Your task to perform on an android device: change the clock display to digital Image 0: 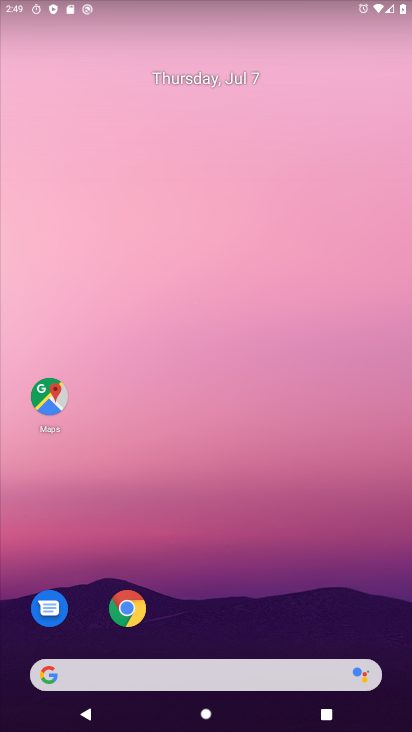
Step 0: drag from (229, 715) to (228, 147)
Your task to perform on an android device: change the clock display to digital Image 1: 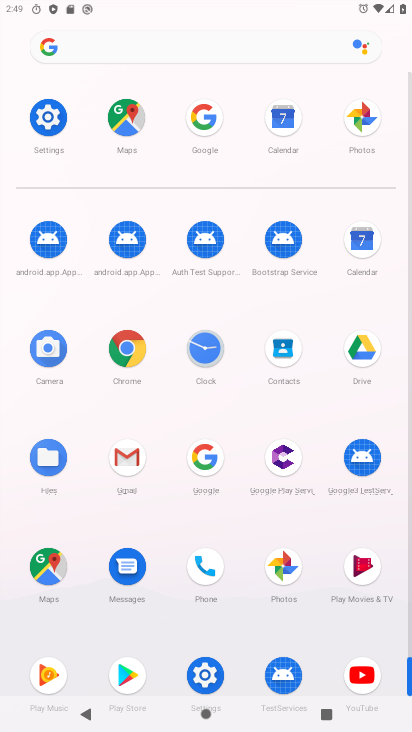
Step 1: click (197, 354)
Your task to perform on an android device: change the clock display to digital Image 2: 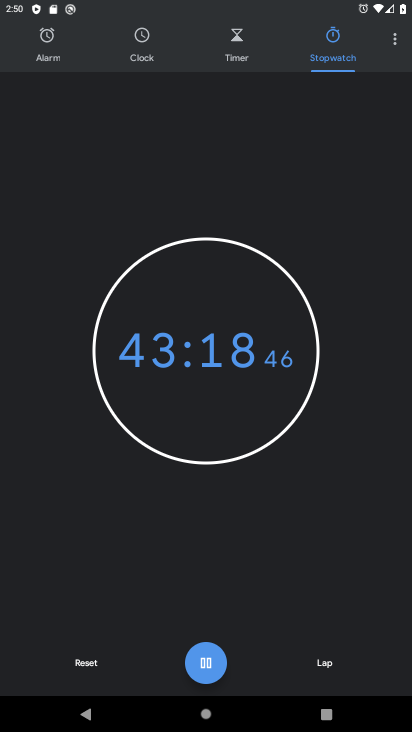
Step 2: click (397, 46)
Your task to perform on an android device: change the clock display to digital Image 3: 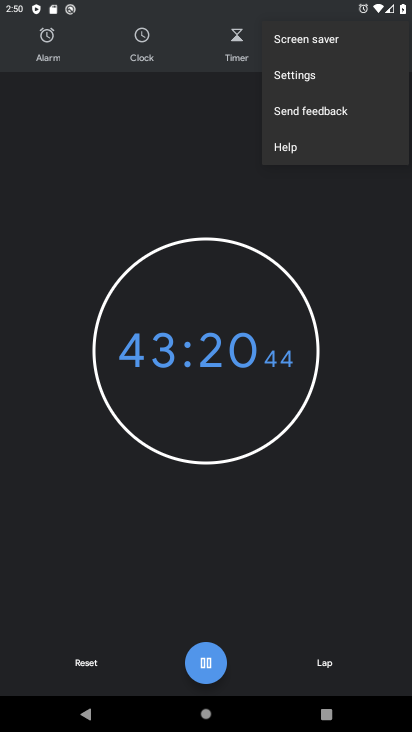
Step 3: click (288, 78)
Your task to perform on an android device: change the clock display to digital Image 4: 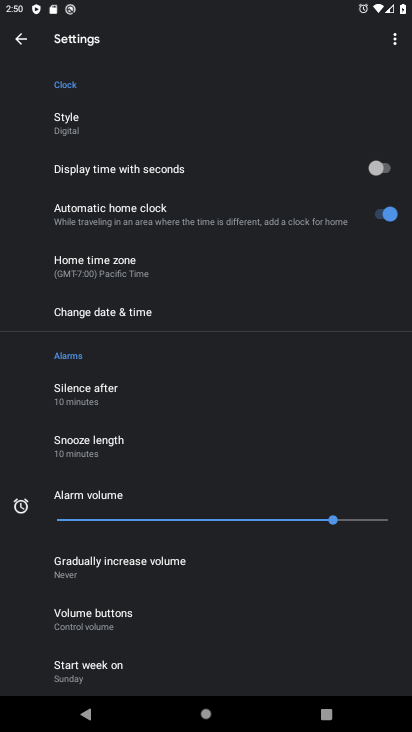
Step 4: click (71, 125)
Your task to perform on an android device: change the clock display to digital Image 5: 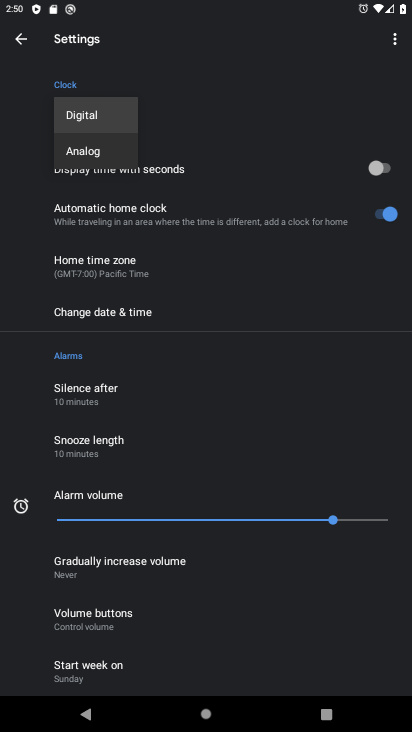
Step 5: click (90, 115)
Your task to perform on an android device: change the clock display to digital Image 6: 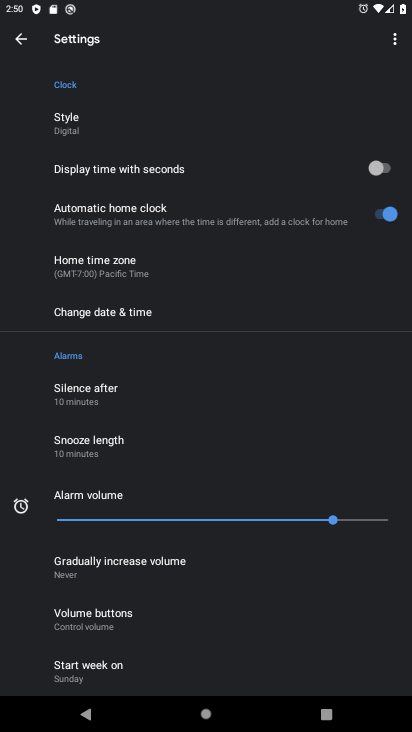
Step 6: task complete